Your task to perform on an android device: Go to Maps Image 0: 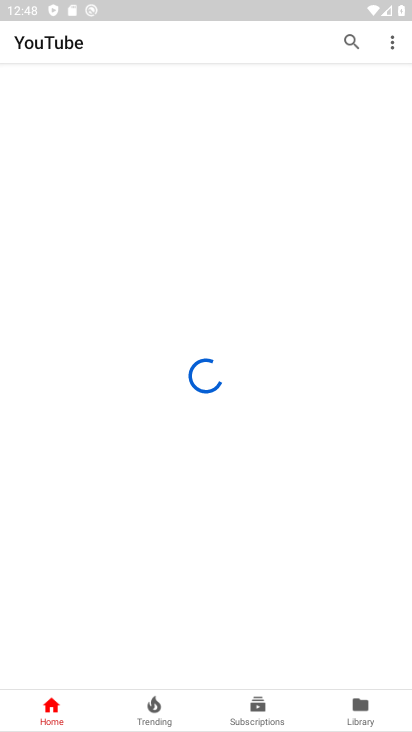
Step 0: press home button
Your task to perform on an android device: Go to Maps Image 1: 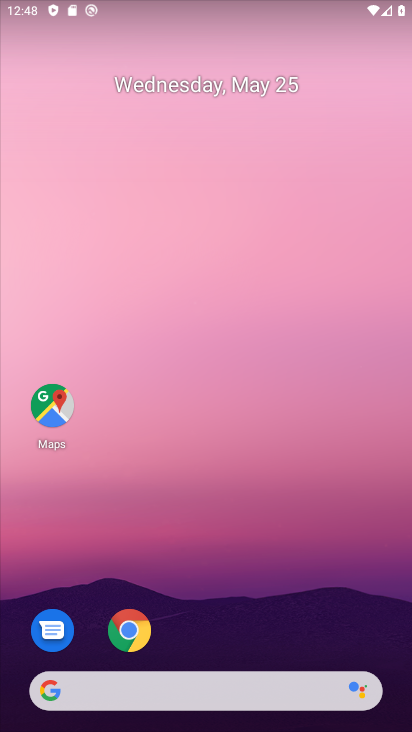
Step 1: click (48, 401)
Your task to perform on an android device: Go to Maps Image 2: 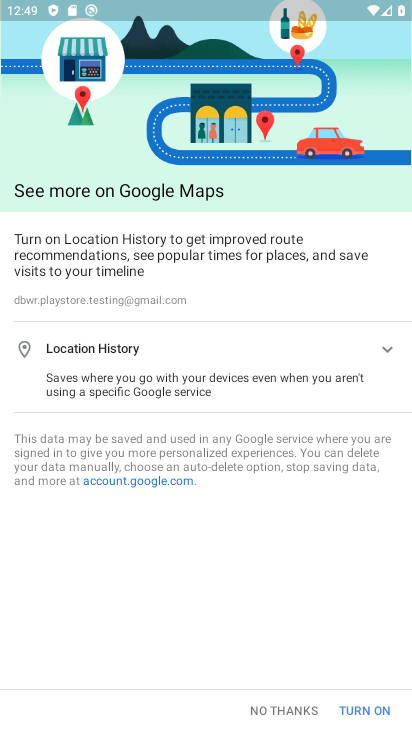
Step 2: click (360, 705)
Your task to perform on an android device: Go to Maps Image 3: 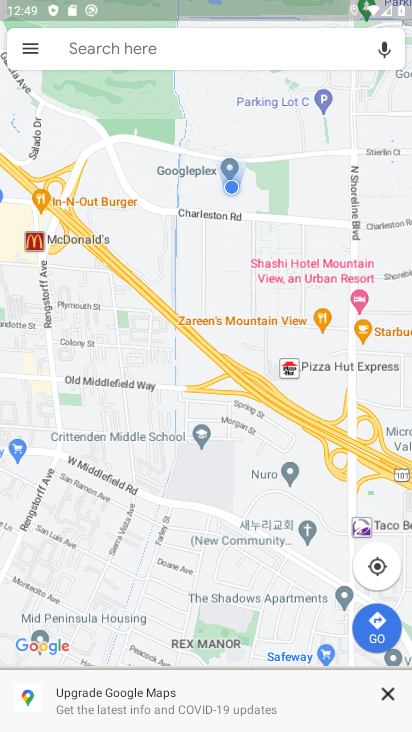
Step 3: task complete